Your task to perform on an android device: turn notification dots on Image 0: 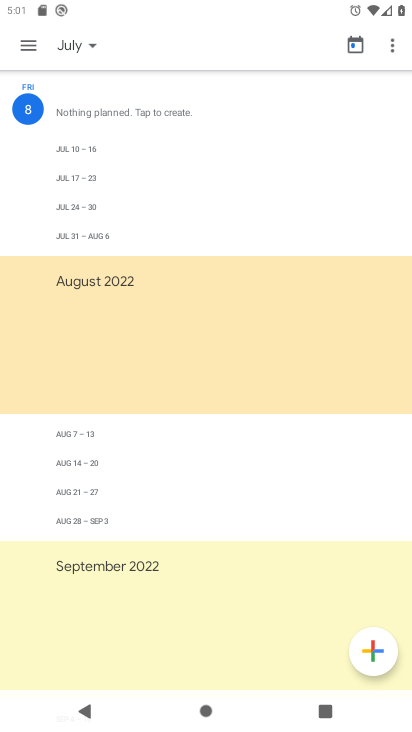
Step 0: drag from (267, 671) to (173, 184)
Your task to perform on an android device: turn notification dots on Image 1: 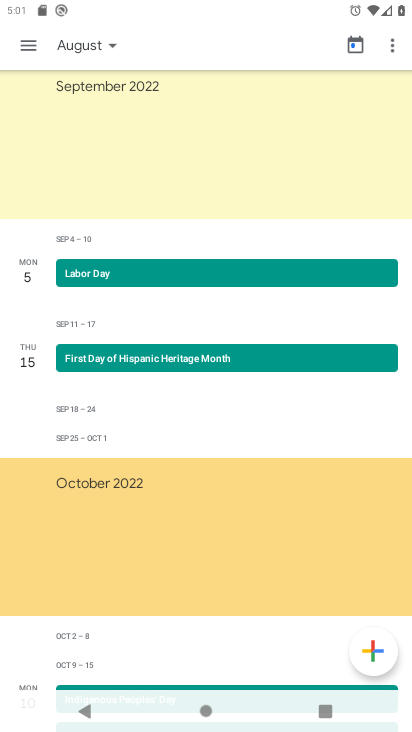
Step 1: press back button
Your task to perform on an android device: turn notification dots on Image 2: 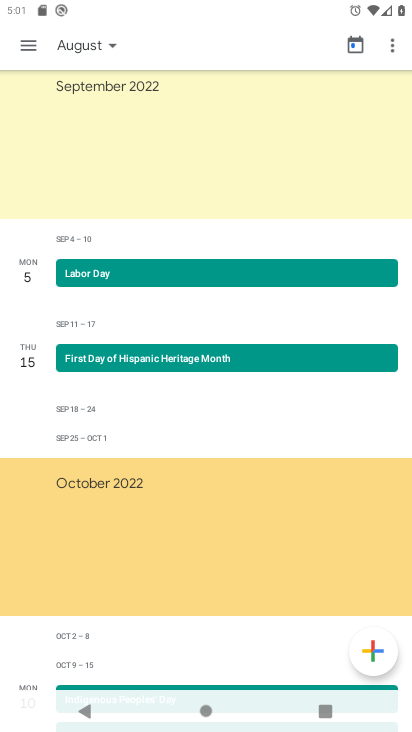
Step 2: press back button
Your task to perform on an android device: turn notification dots on Image 3: 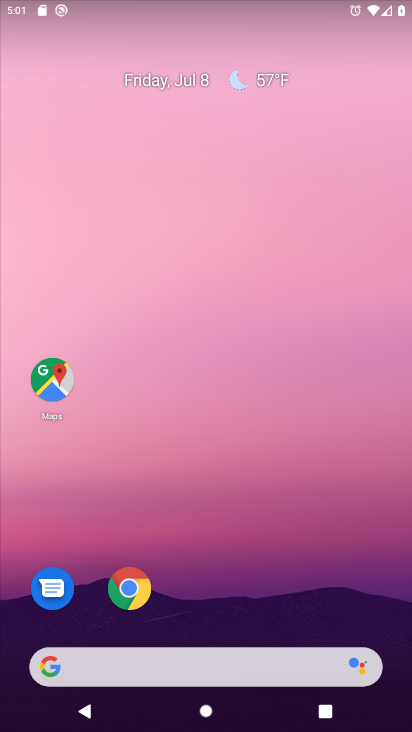
Step 3: click (92, 256)
Your task to perform on an android device: turn notification dots on Image 4: 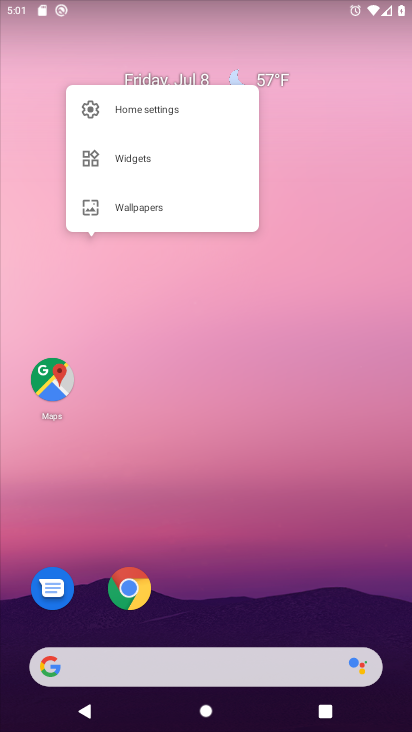
Step 4: drag from (169, 338) to (163, 229)
Your task to perform on an android device: turn notification dots on Image 5: 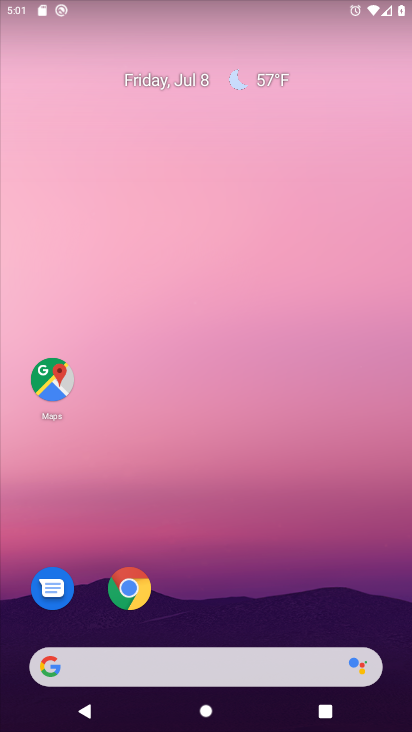
Step 5: drag from (250, 569) to (210, 49)
Your task to perform on an android device: turn notification dots on Image 6: 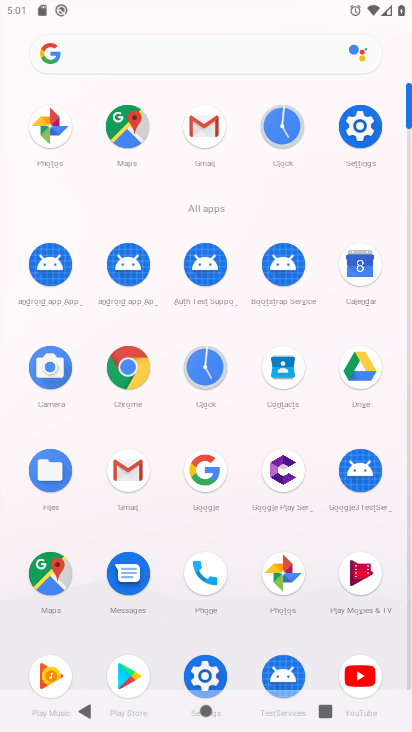
Step 6: click (348, 117)
Your task to perform on an android device: turn notification dots on Image 7: 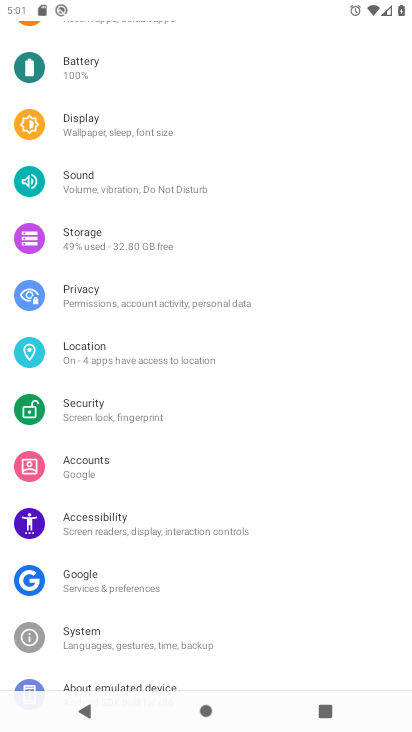
Step 7: click (367, 124)
Your task to perform on an android device: turn notification dots on Image 8: 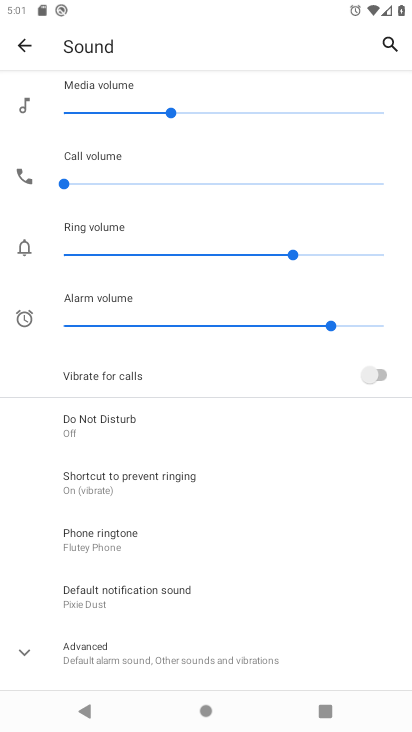
Step 8: click (14, 48)
Your task to perform on an android device: turn notification dots on Image 9: 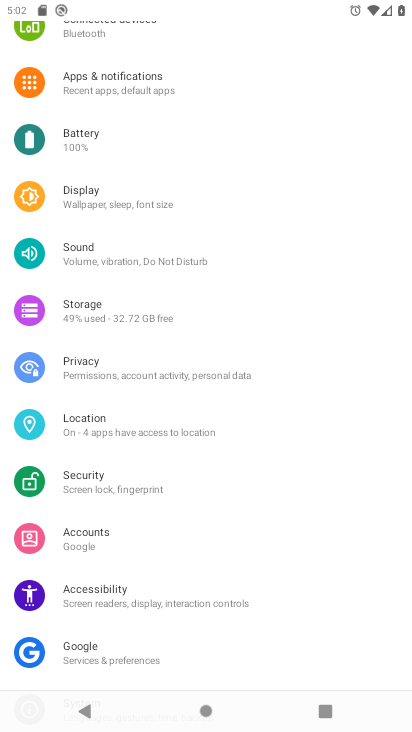
Step 9: click (128, 78)
Your task to perform on an android device: turn notification dots on Image 10: 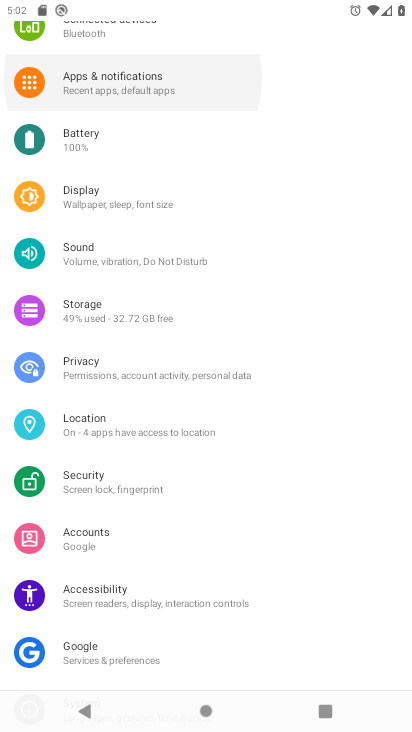
Step 10: click (128, 78)
Your task to perform on an android device: turn notification dots on Image 11: 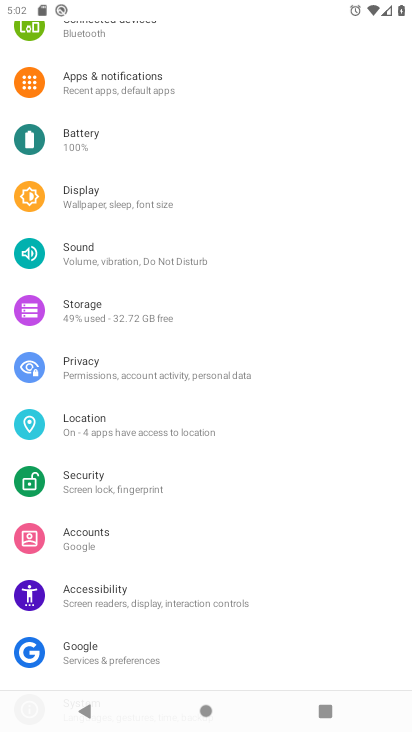
Step 11: click (129, 79)
Your task to perform on an android device: turn notification dots on Image 12: 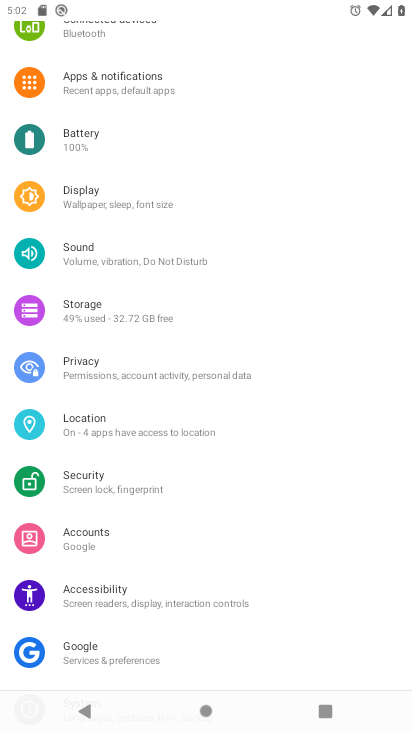
Step 12: click (130, 78)
Your task to perform on an android device: turn notification dots on Image 13: 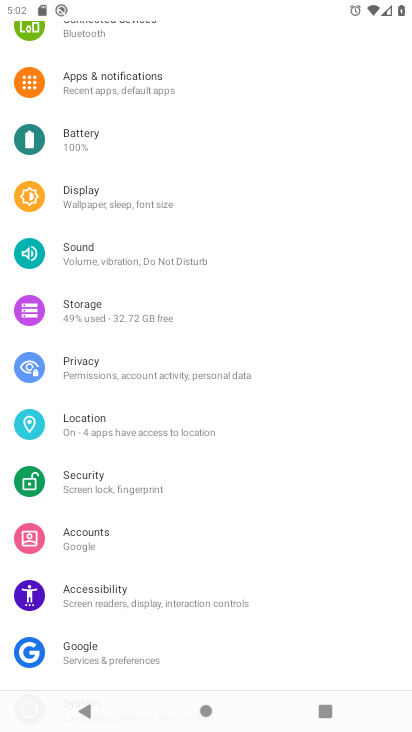
Step 13: click (136, 72)
Your task to perform on an android device: turn notification dots on Image 14: 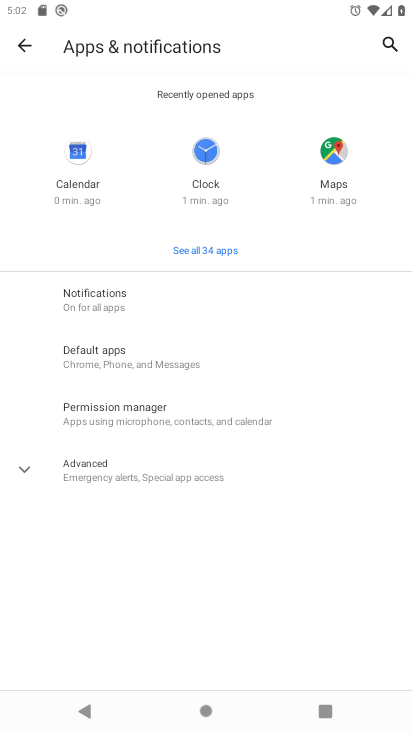
Step 14: click (86, 470)
Your task to perform on an android device: turn notification dots on Image 15: 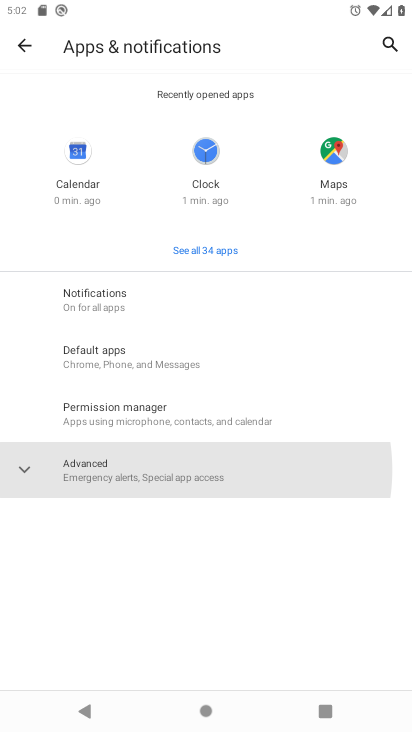
Step 15: click (85, 471)
Your task to perform on an android device: turn notification dots on Image 16: 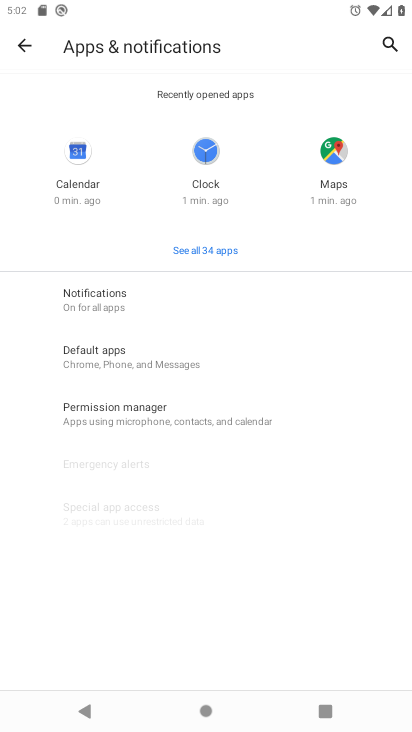
Step 16: click (85, 472)
Your task to perform on an android device: turn notification dots on Image 17: 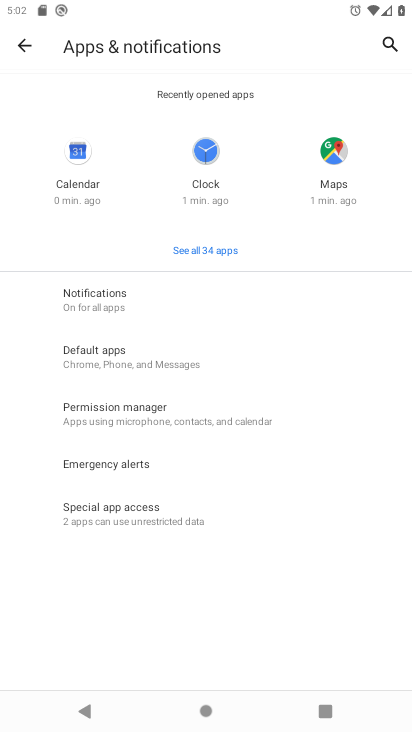
Step 17: click (85, 472)
Your task to perform on an android device: turn notification dots on Image 18: 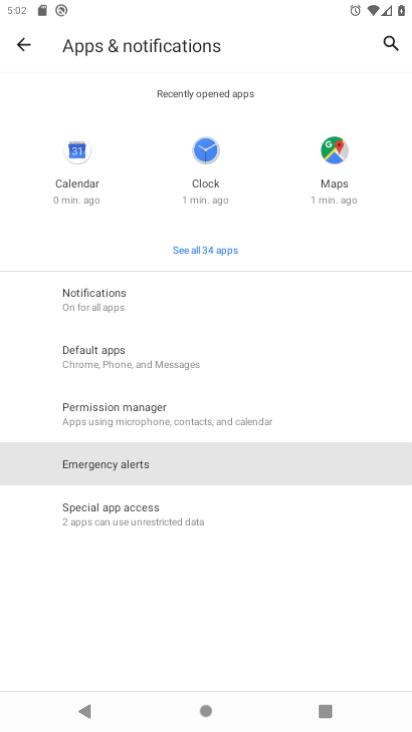
Step 18: click (86, 473)
Your task to perform on an android device: turn notification dots on Image 19: 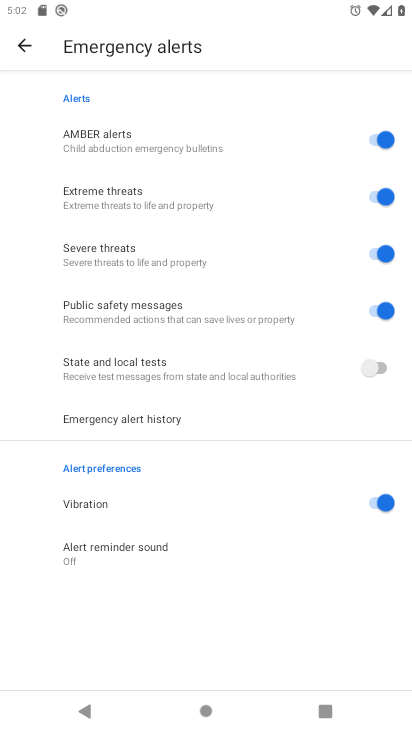
Step 19: press back button
Your task to perform on an android device: turn notification dots on Image 20: 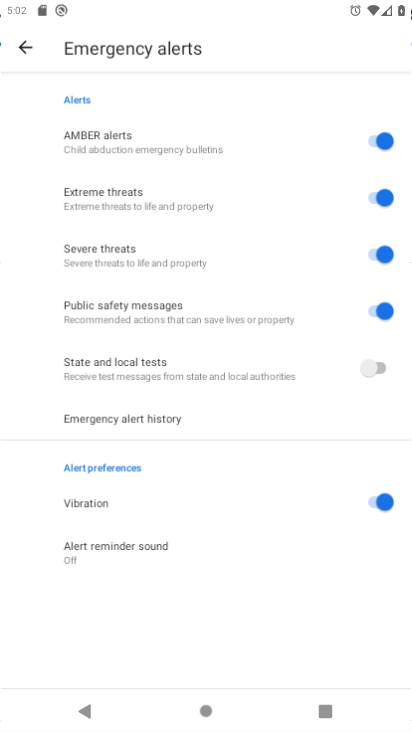
Step 20: click (25, 46)
Your task to perform on an android device: turn notification dots on Image 21: 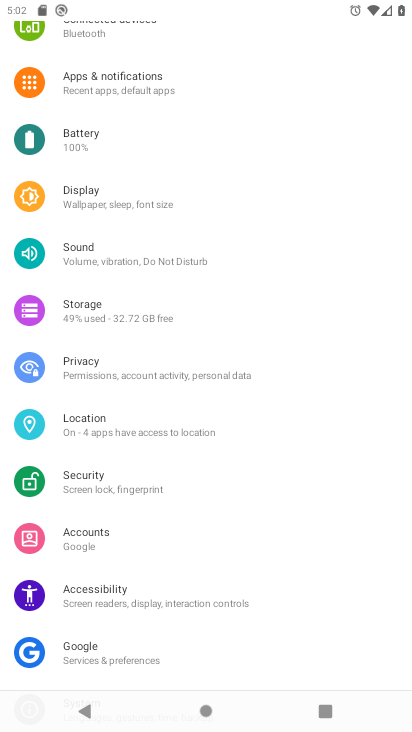
Step 21: click (103, 75)
Your task to perform on an android device: turn notification dots on Image 22: 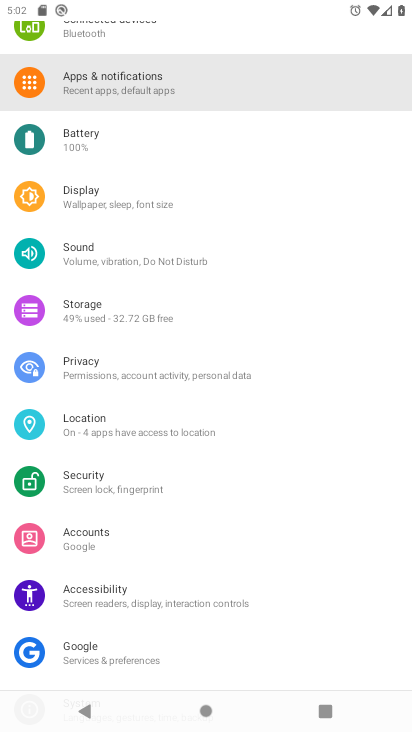
Step 22: click (109, 76)
Your task to perform on an android device: turn notification dots on Image 23: 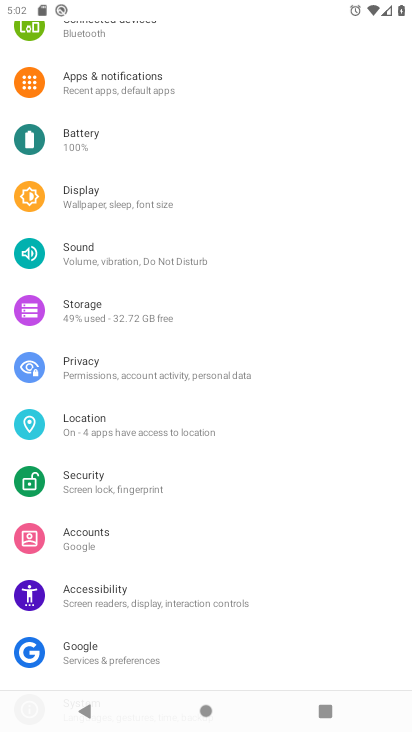
Step 23: click (109, 76)
Your task to perform on an android device: turn notification dots on Image 24: 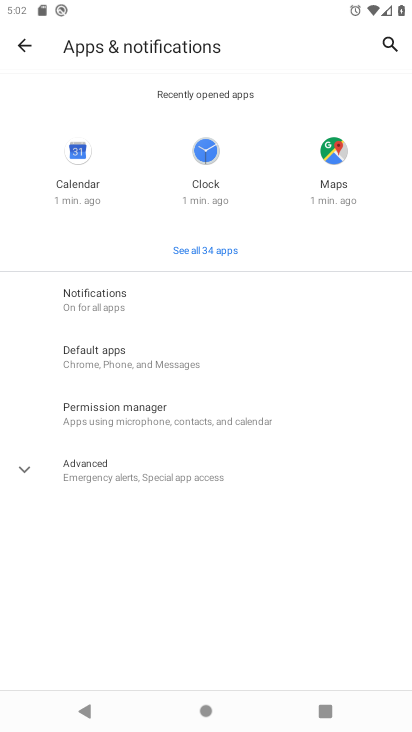
Step 24: click (90, 300)
Your task to perform on an android device: turn notification dots on Image 25: 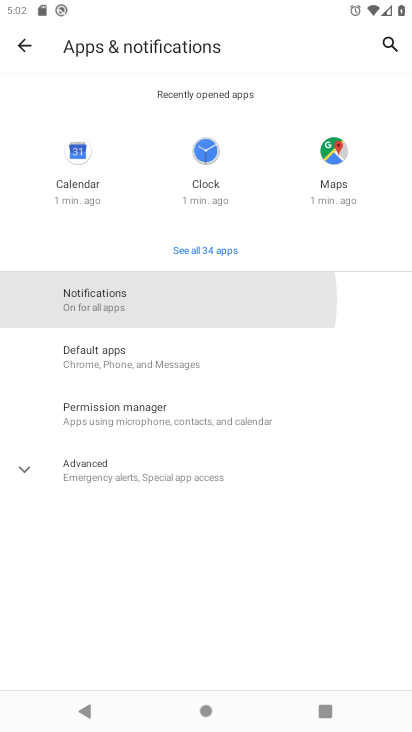
Step 25: click (90, 300)
Your task to perform on an android device: turn notification dots on Image 26: 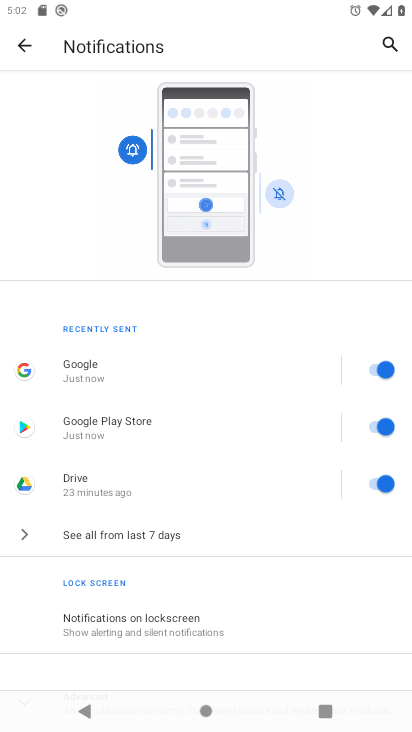
Step 26: drag from (174, 617) to (213, 302)
Your task to perform on an android device: turn notification dots on Image 27: 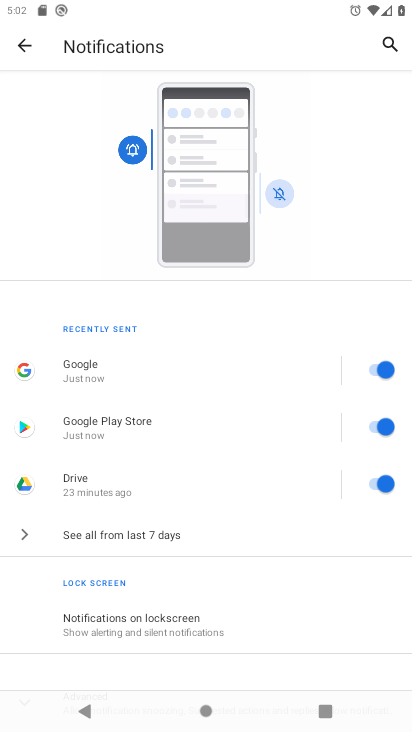
Step 27: drag from (169, 593) to (152, 309)
Your task to perform on an android device: turn notification dots on Image 28: 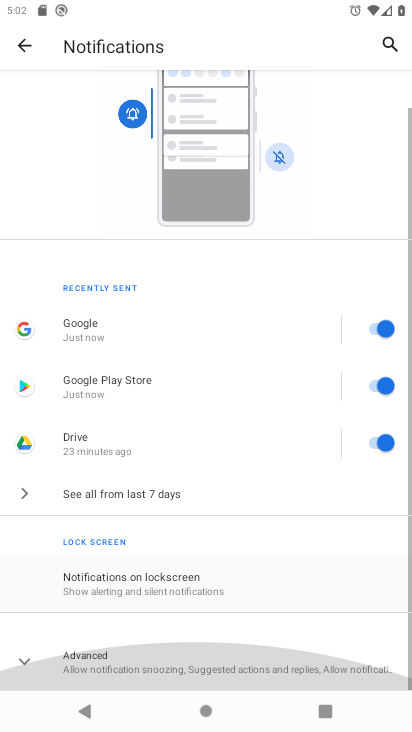
Step 28: drag from (156, 509) to (104, 264)
Your task to perform on an android device: turn notification dots on Image 29: 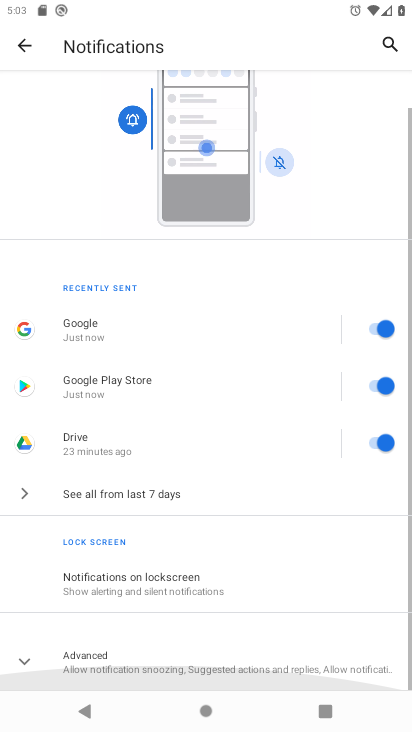
Step 29: drag from (155, 429) to (150, 239)
Your task to perform on an android device: turn notification dots on Image 30: 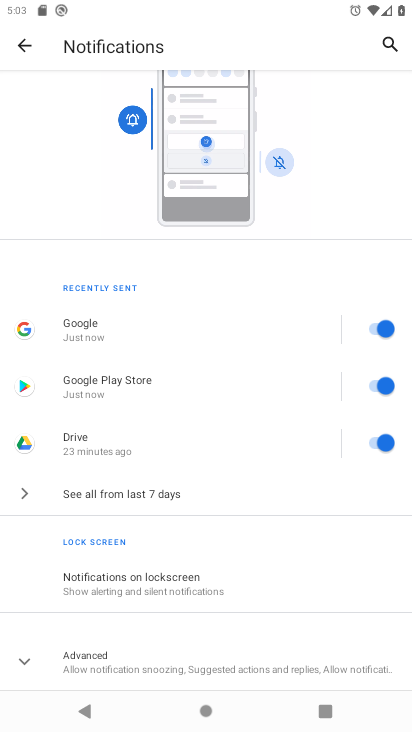
Step 30: click (89, 661)
Your task to perform on an android device: turn notification dots on Image 31: 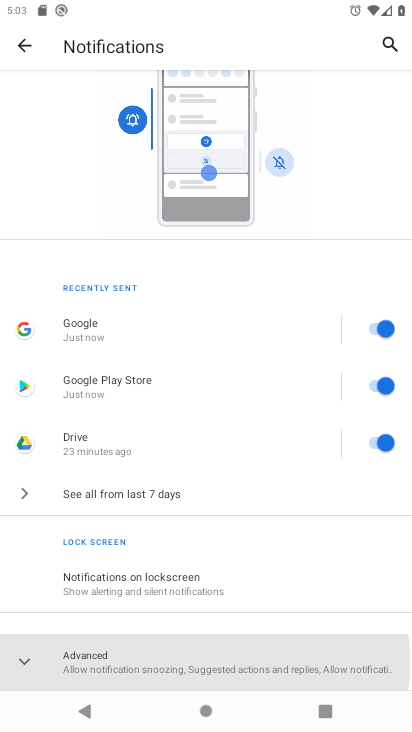
Step 31: click (89, 661)
Your task to perform on an android device: turn notification dots on Image 32: 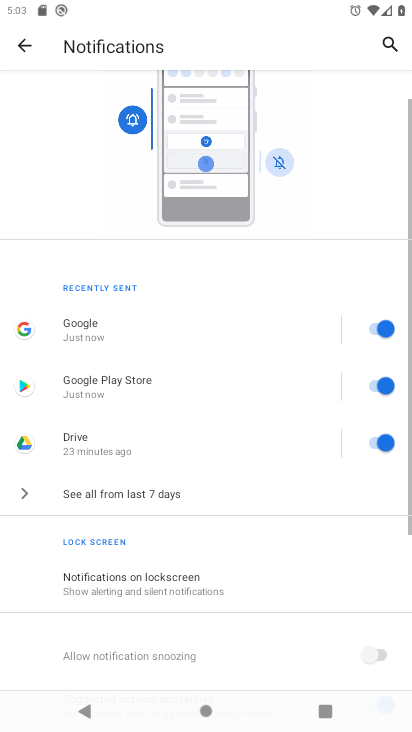
Step 32: click (89, 661)
Your task to perform on an android device: turn notification dots on Image 33: 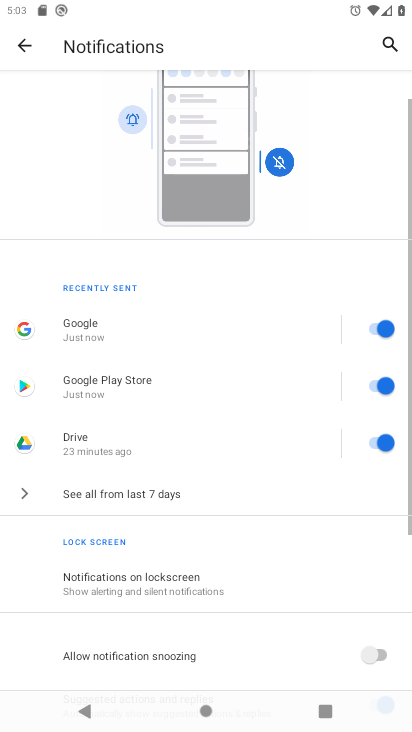
Step 33: click (89, 660)
Your task to perform on an android device: turn notification dots on Image 34: 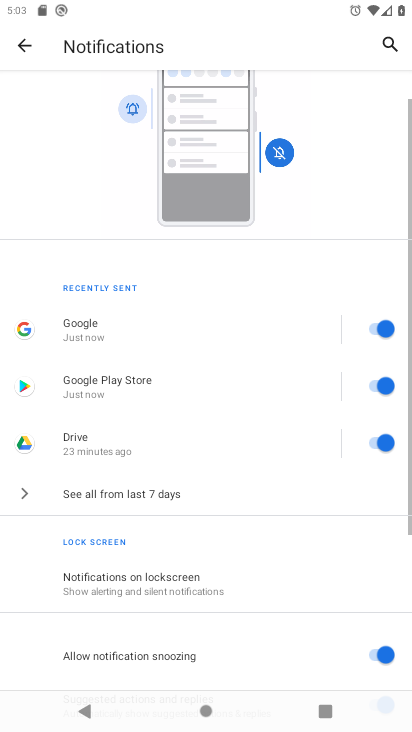
Step 34: drag from (206, 506) to (200, 233)
Your task to perform on an android device: turn notification dots on Image 35: 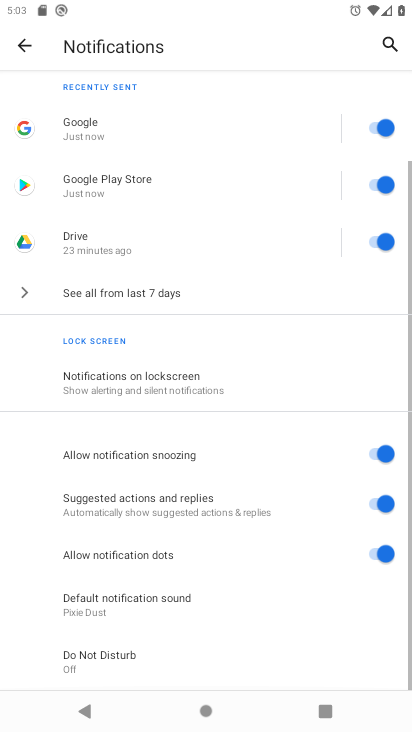
Step 35: drag from (246, 288) to (246, 203)
Your task to perform on an android device: turn notification dots on Image 36: 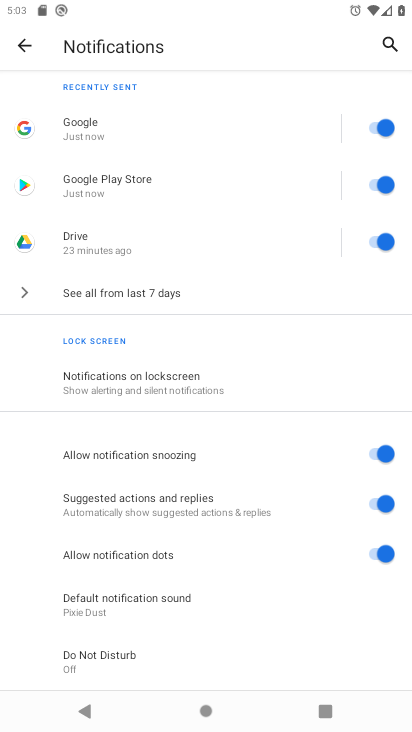
Step 36: click (239, 226)
Your task to perform on an android device: turn notification dots on Image 37: 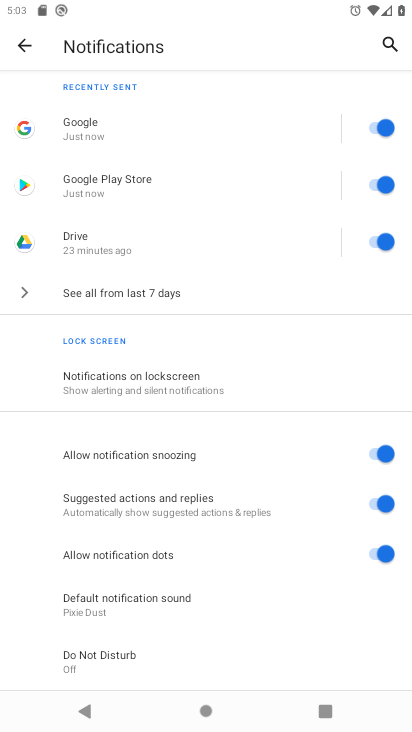
Step 37: task complete